Your task to perform on an android device: Go to Wikipedia Image 0: 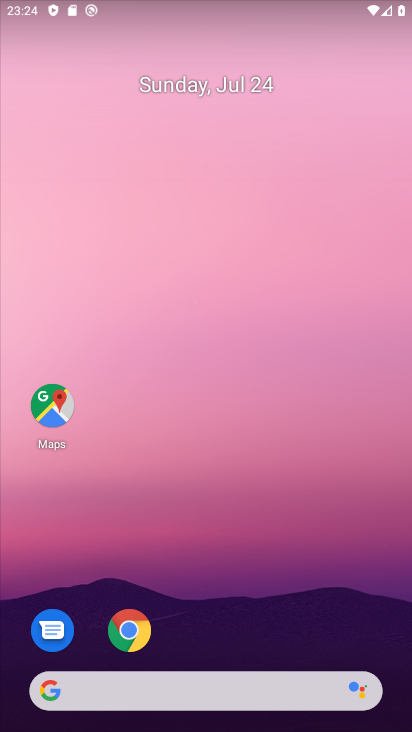
Step 0: click (127, 628)
Your task to perform on an android device: Go to Wikipedia Image 1: 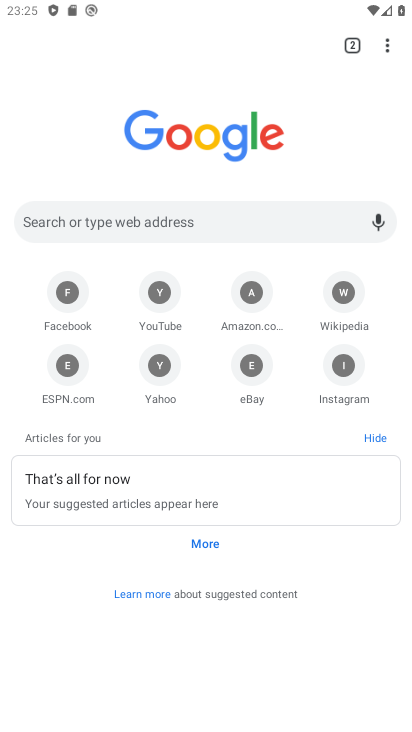
Step 1: click (333, 283)
Your task to perform on an android device: Go to Wikipedia Image 2: 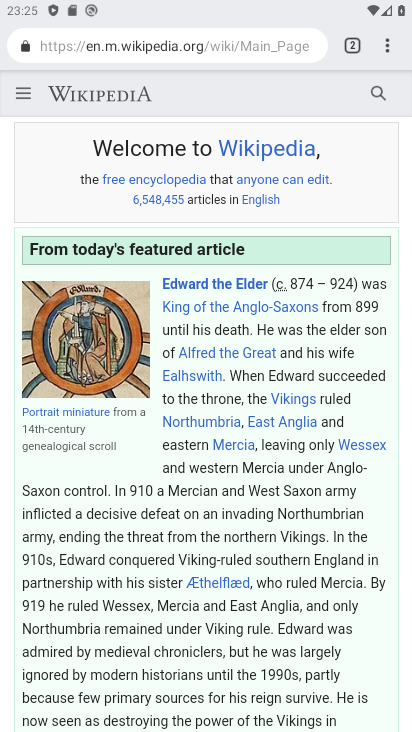
Step 2: task complete